Your task to perform on an android device: clear history in the chrome app Image 0: 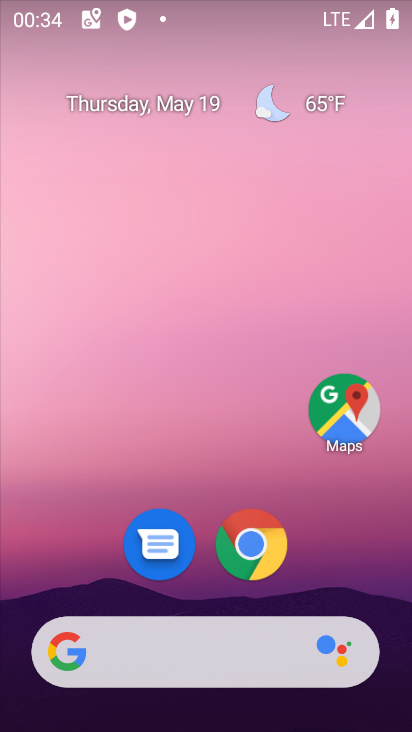
Step 0: drag from (371, 563) to (352, 91)
Your task to perform on an android device: clear history in the chrome app Image 1: 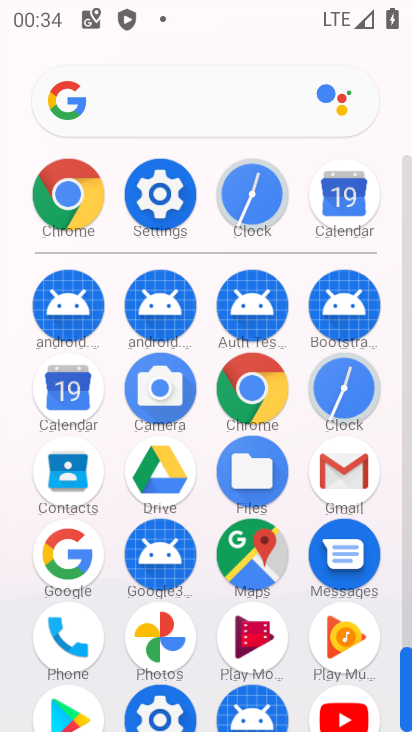
Step 1: click (234, 403)
Your task to perform on an android device: clear history in the chrome app Image 2: 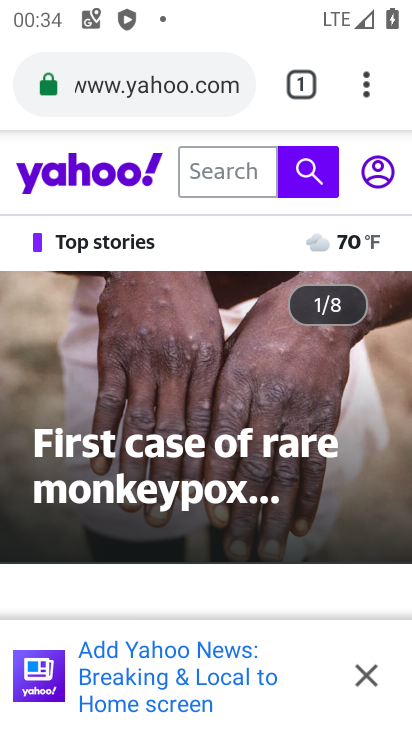
Step 2: click (369, 92)
Your task to perform on an android device: clear history in the chrome app Image 3: 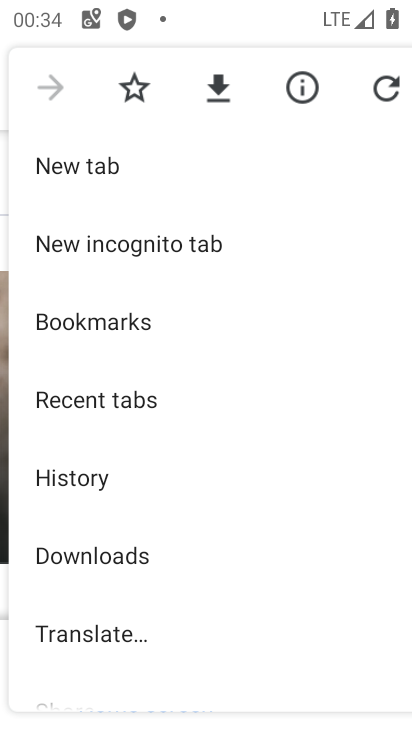
Step 3: drag from (271, 583) to (272, 405)
Your task to perform on an android device: clear history in the chrome app Image 4: 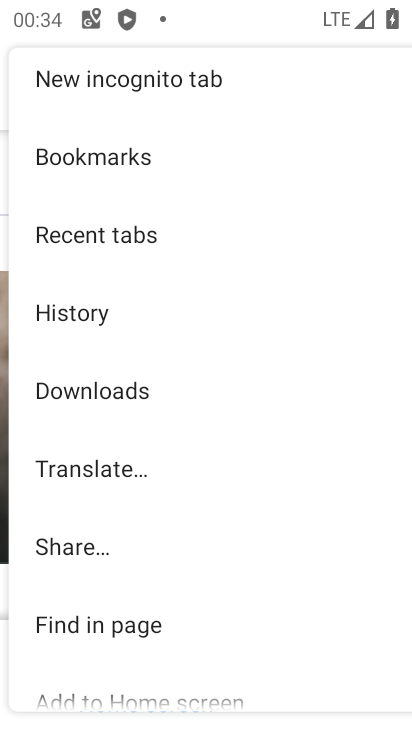
Step 4: drag from (299, 599) to (300, 445)
Your task to perform on an android device: clear history in the chrome app Image 5: 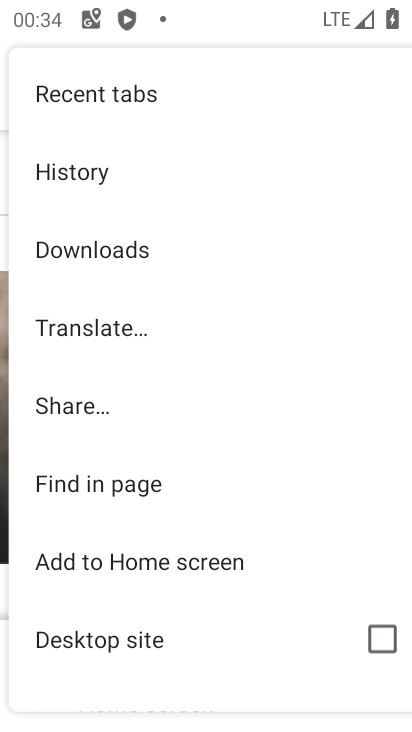
Step 5: drag from (302, 639) to (311, 492)
Your task to perform on an android device: clear history in the chrome app Image 6: 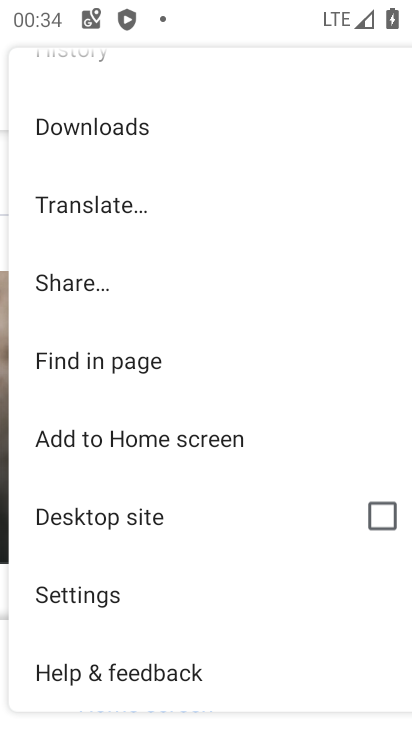
Step 6: drag from (258, 586) to (271, 427)
Your task to perform on an android device: clear history in the chrome app Image 7: 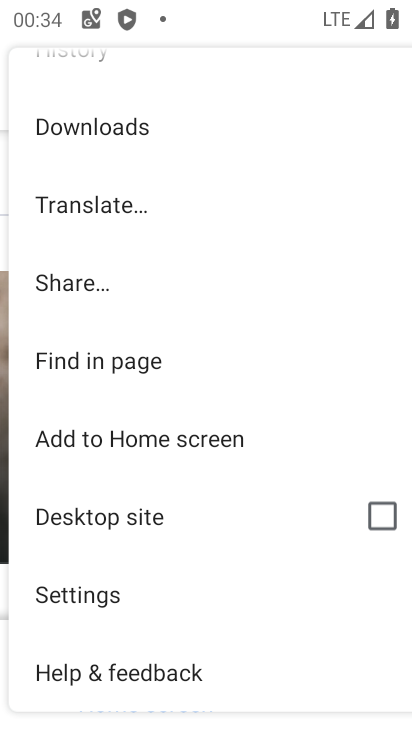
Step 7: drag from (280, 303) to (288, 523)
Your task to perform on an android device: clear history in the chrome app Image 8: 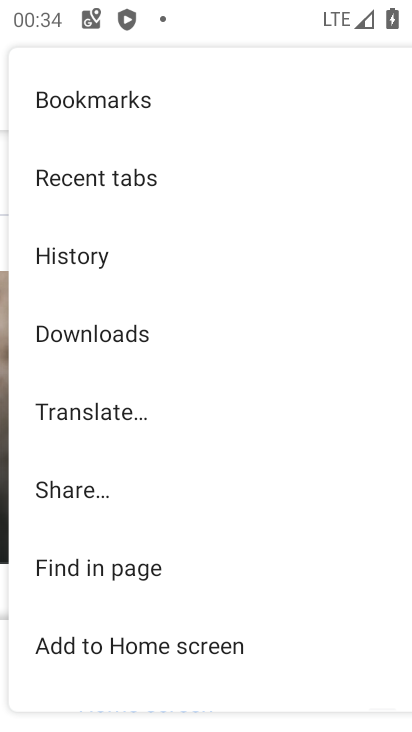
Step 8: drag from (275, 301) to (264, 475)
Your task to perform on an android device: clear history in the chrome app Image 9: 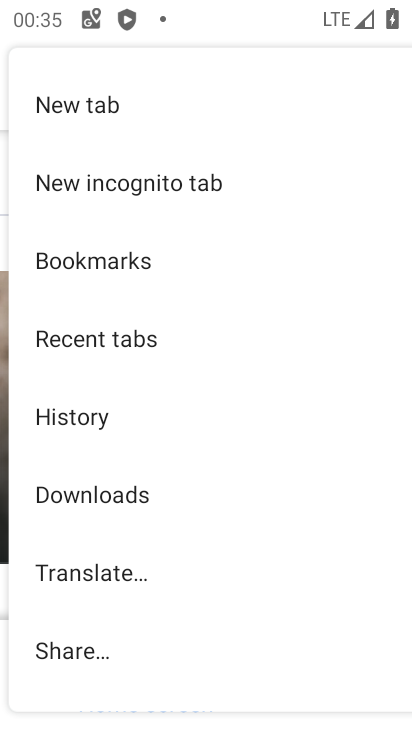
Step 9: click (114, 420)
Your task to perform on an android device: clear history in the chrome app Image 10: 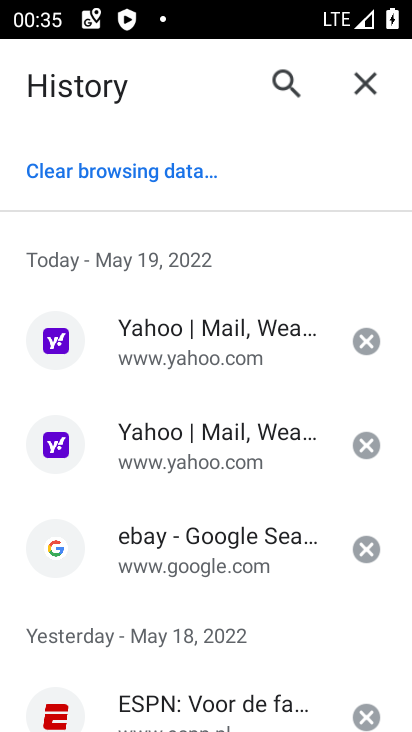
Step 10: click (140, 183)
Your task to perform on an android device: clear history in the chrome app Image 11: 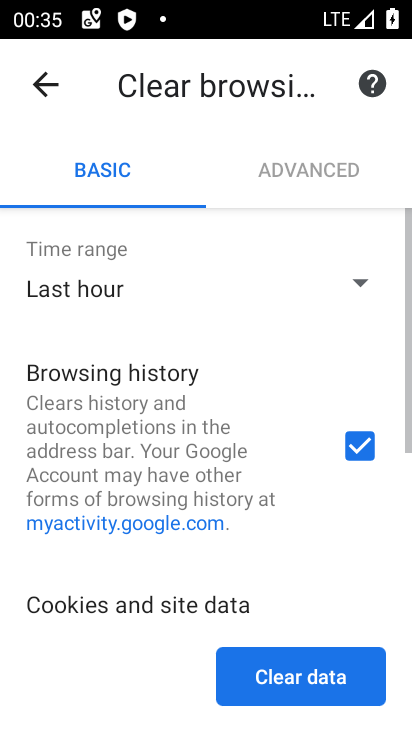
Step 11: click (323, 686)
Your task to perform on an android device: clear history in the chrome app Image 12: 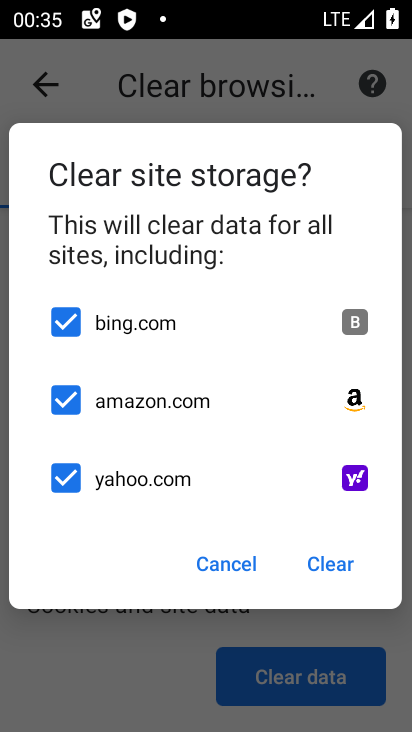
Step 12: click (332, 569)
Your task to perform on an android device: clear history in the chrome app Image 13: 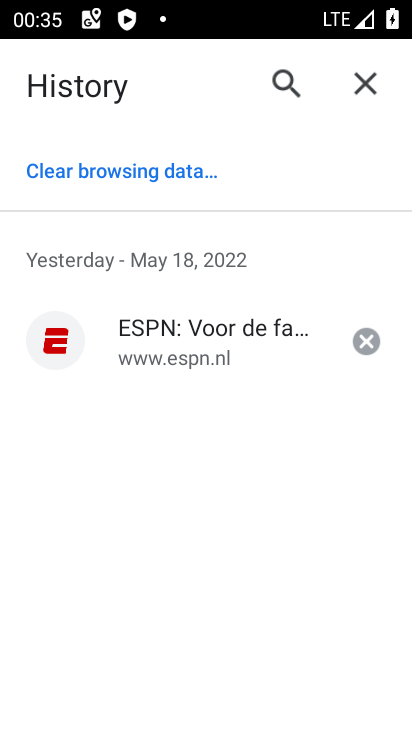
Step 13: click (175, 177)
Your task to perform on an android device: clear history in the chrome app Image 14: 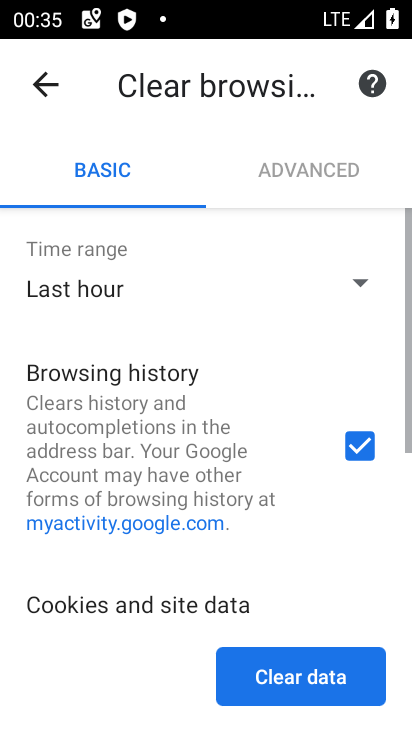
Step 14: click (325, 677)
Your task to perform on an android device: clear history in the chrome app Image 15: 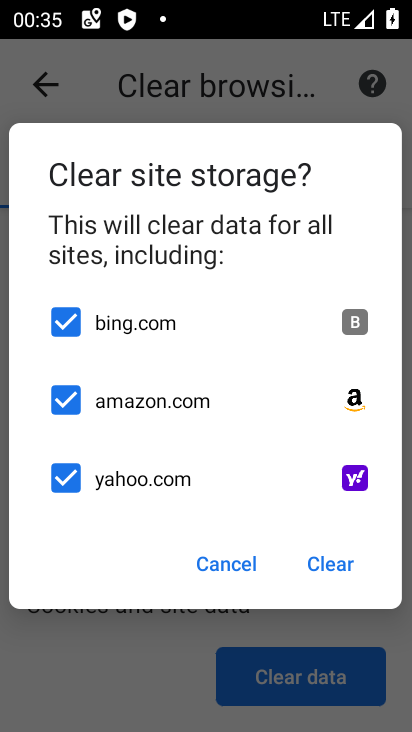
Step 15: click (338, 564)
Your task to perform on an android device: clear history in the chrome app Image 16: 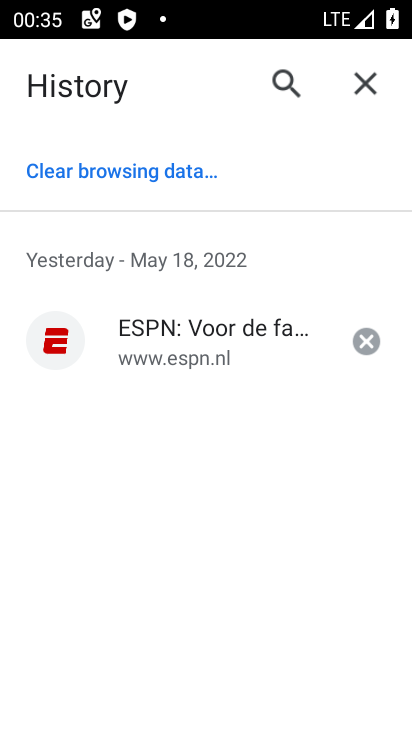
Step 16: click (169, 171)
Your task to perform on an android device: clear history in the chrome app Image 17: 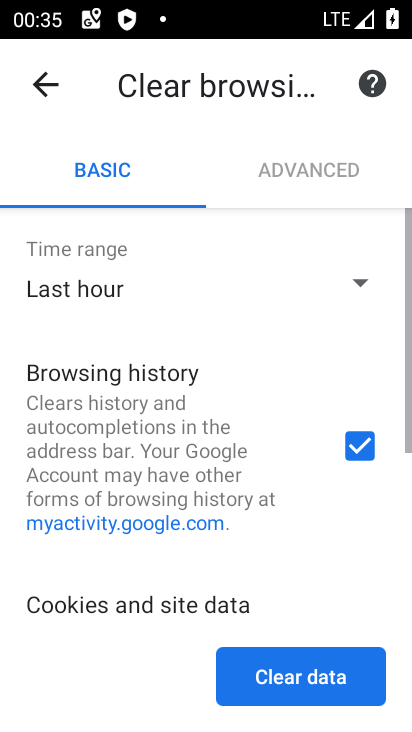
Step 17: drag from (291, 538) to (256, 300)
Your task to perform on an android device: clear history in the chrome app Image 18: 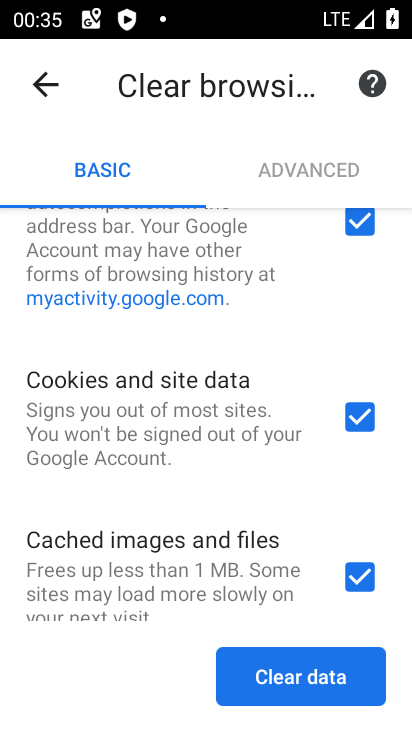
Step 18: click (306, 679)
Your task to perform on an android device: clear history in the chrome app Image 19: 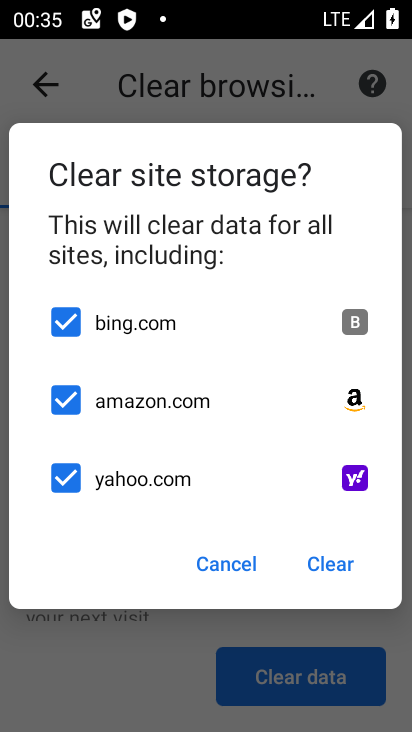
Step 19: click (332, 573)
Your task to perform on an android device: clear history in the chrome app Image 20: 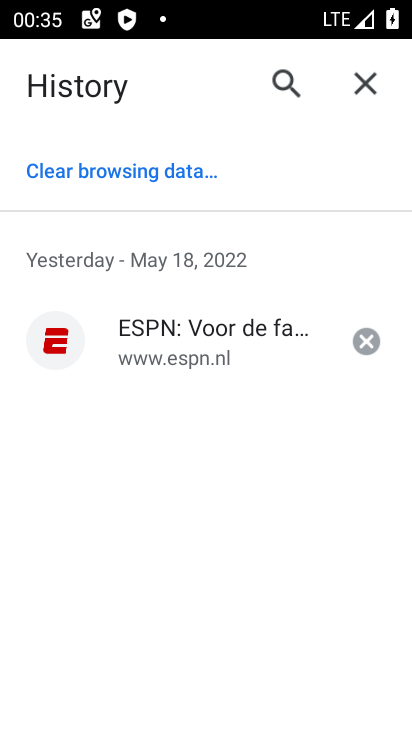
Step 20: task complete